Your task to perform on an android device: star an email in the gmail app Image 0: 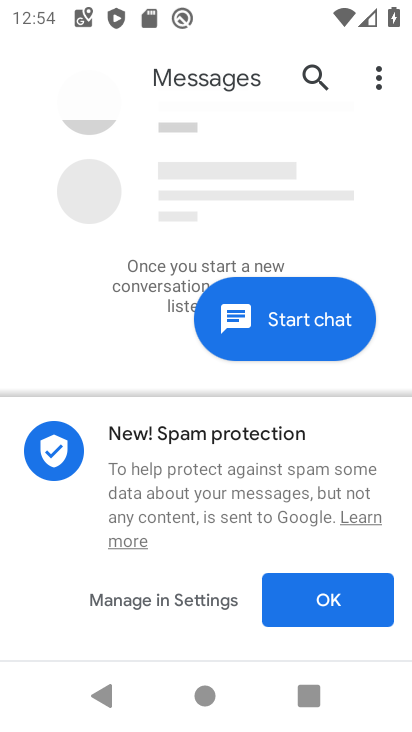
Step 0: press home button
Your task to perform on an android device: star an email in the gmail app Image 1: 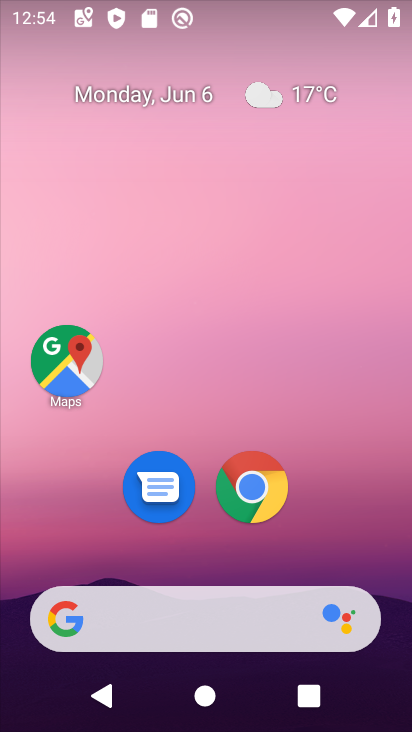
Step 1: drag from (63, 595) to (232, 0)
Your task to perform on an android device: star an email in the gmail app Image 2: 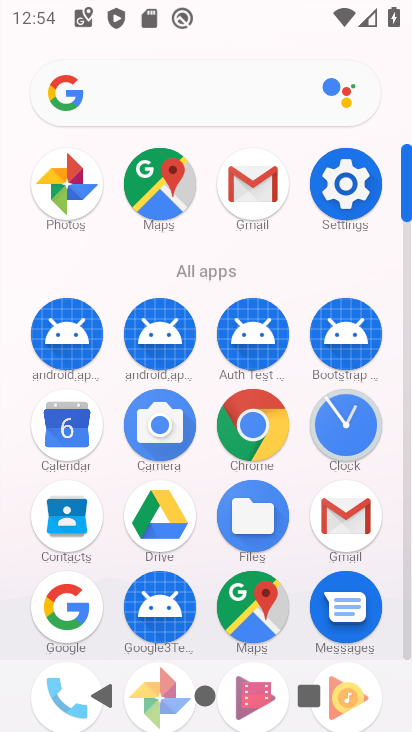
Step 2: click (354, 526)
Your task to perform on an android device: star an email in the gmail app Image 3: 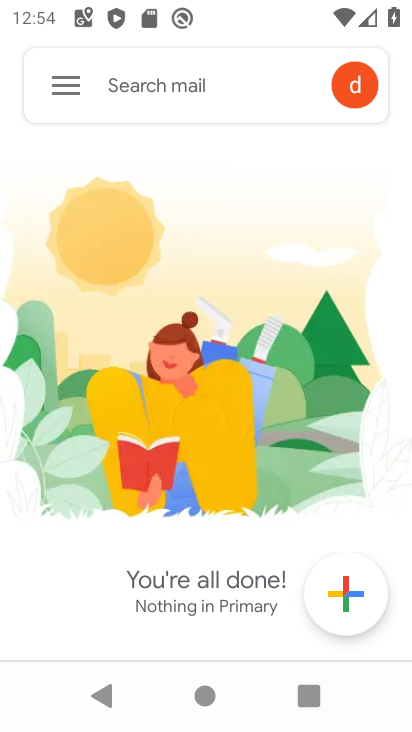
Step 3: click (73, 89)
Your task to perform on an android device: star an email in the gmail app Image 4: 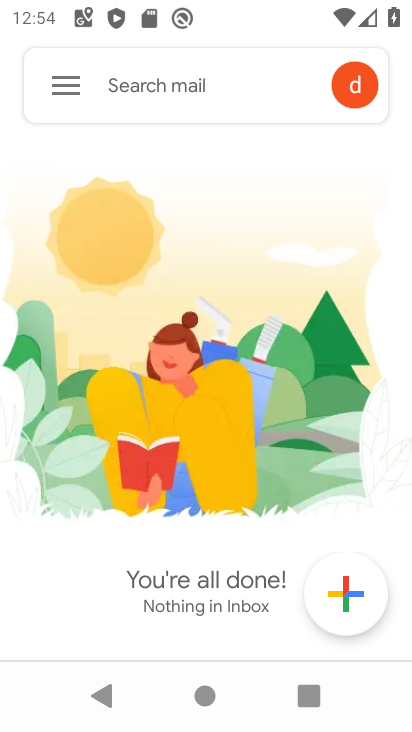
Step 4: click (68, 82)
Your task to perform on an android device: star an email in the gmail app Image 5: 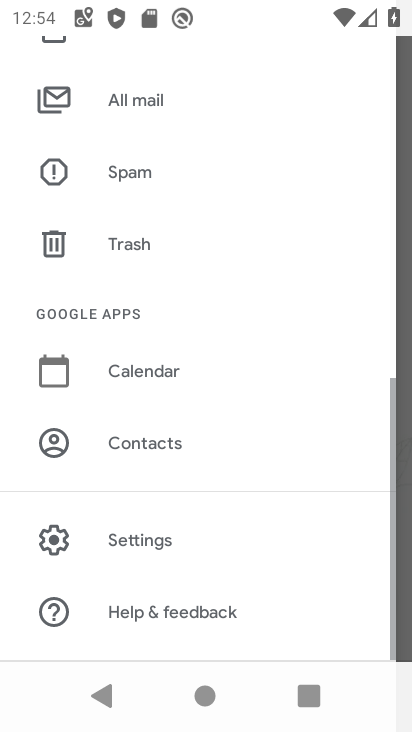
Step 5: drag from (138, 575) to (313, 229)
Your task to perform on an android device: star an email in the gmail app Image 6: 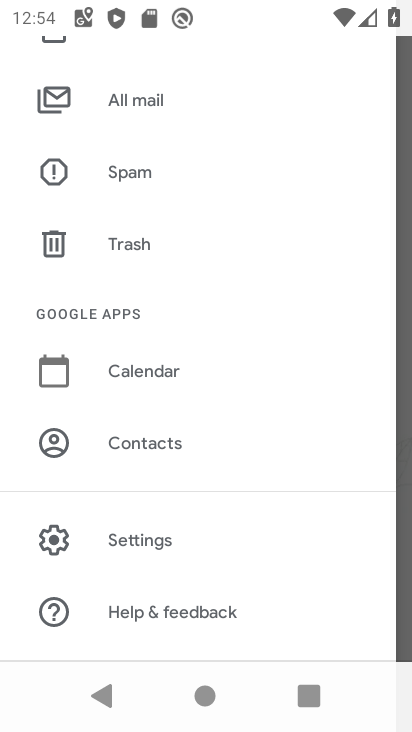
Step 6: click (225, 106)
Your task to perform on an android device: star an email in the gmail app Image 7: 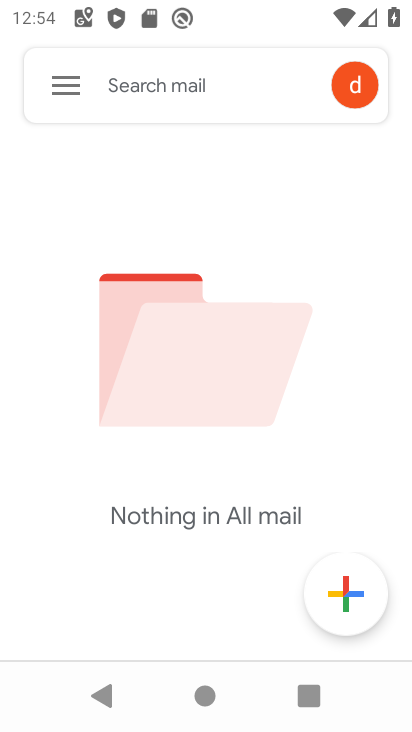
Step 7: task complete